Your task to perform on an android device: change the clock display to show seconds Image 0: 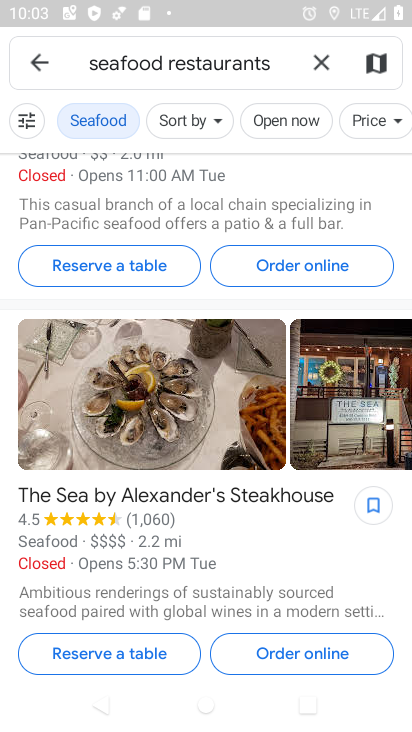
Step 0: press home button
Your task to perform on an android device: change the clock display to show seconds Image 1: 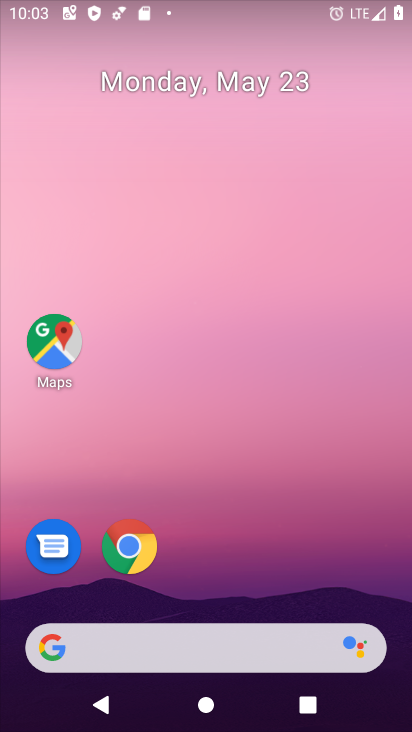
Step 1: drag from (390, 604) to (332, 59)
Your task to perform on an android device: change the clock display to show seconds Image 2: 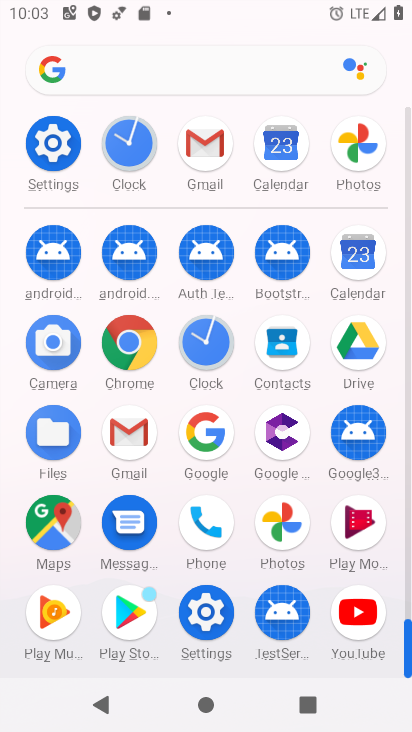
Step 2: click (204, 341)
Your task to perform on an android device: change the clock display to show seconds Image 3: 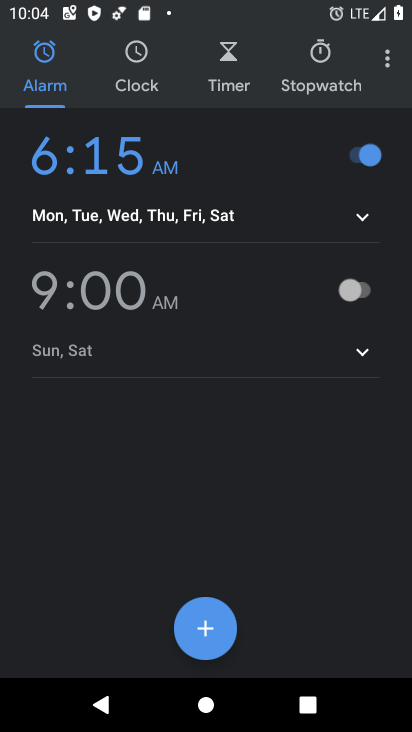
Step 3: click (385, 63)
Your task to perform on an android device: change the clock display to show seconds Image 4: 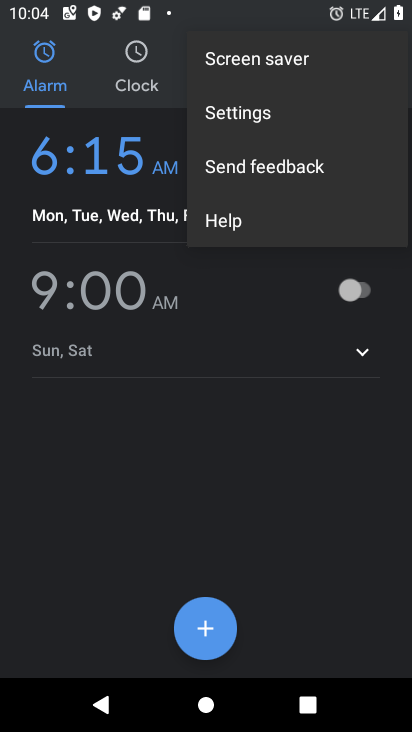
Step 4: click (230, 111)
Your task to perform on an android device: change the clock display to show seconds Image 5: 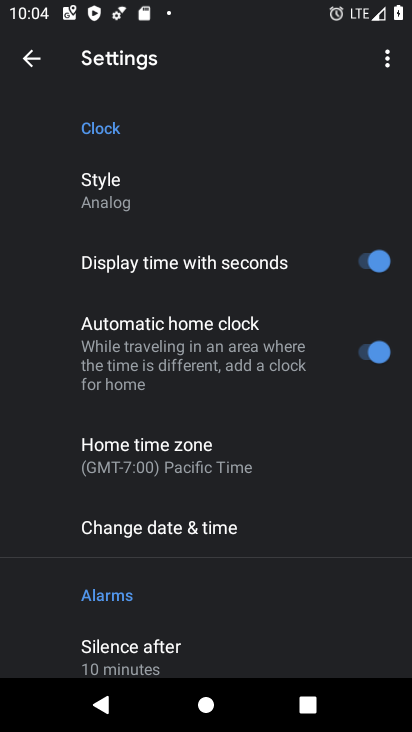
Step 5: task complete